Your task to perform on an android device: change the clock style Image 0: 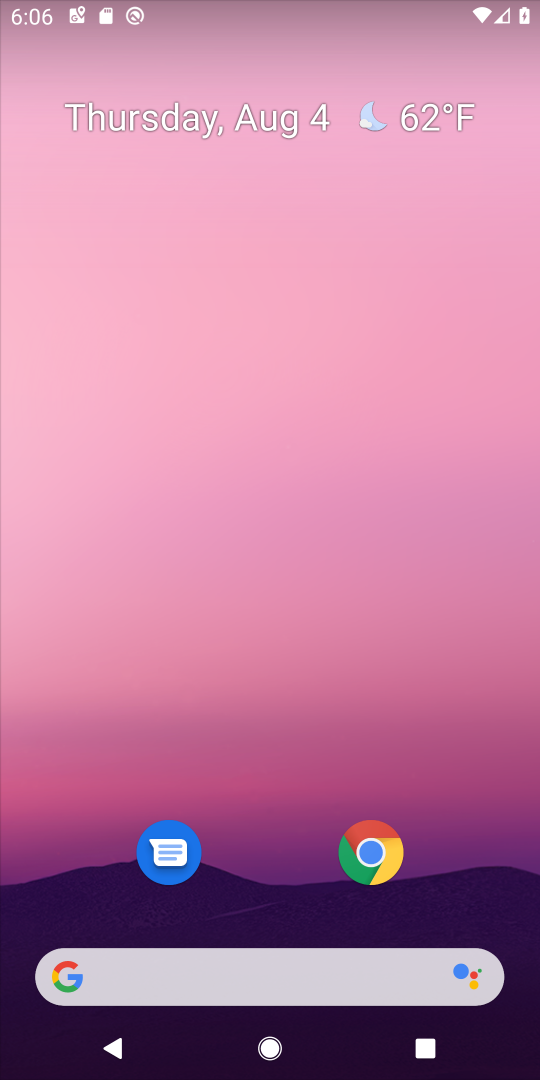
Step 0: drag from (252, 713) to (251, 59)
Your task to perform on an android device: change the clock style Image 1: 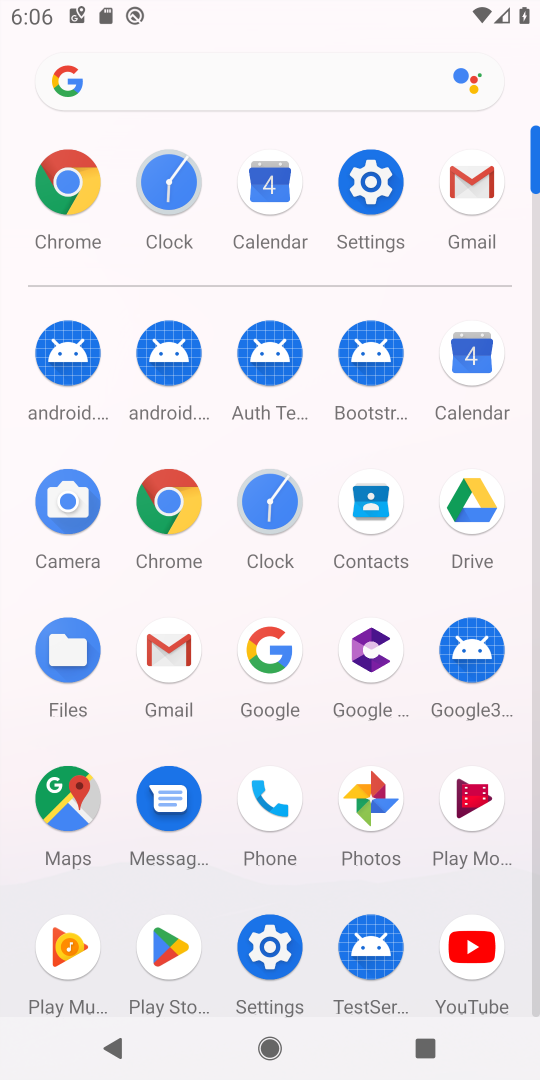
Step 1: click (269, 523)
Your task to perform on an android device: change the clock style Image 2: 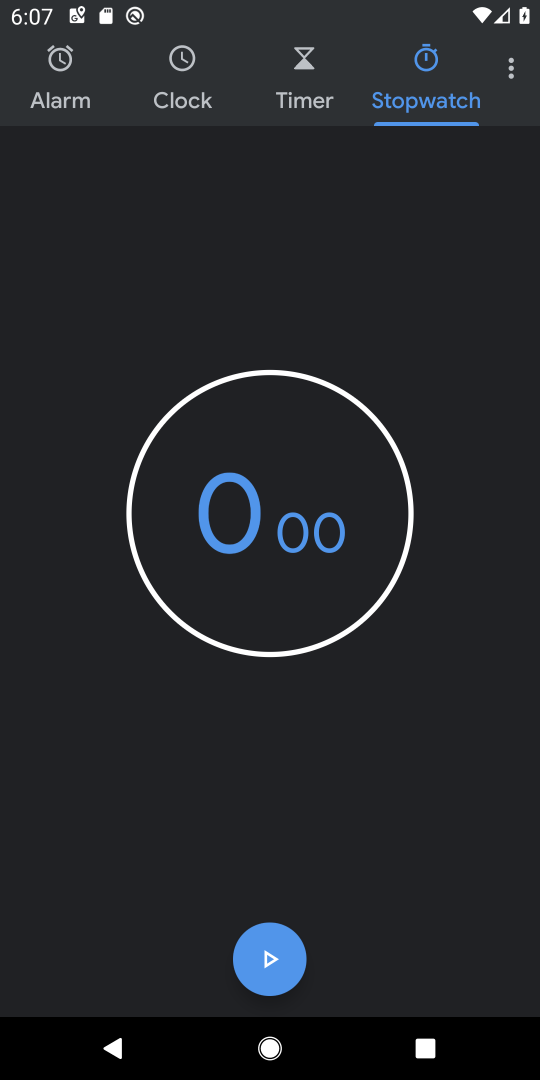
Step 2: click (514, 80)
Your task to perform on an android device: change the clock style Image 3: 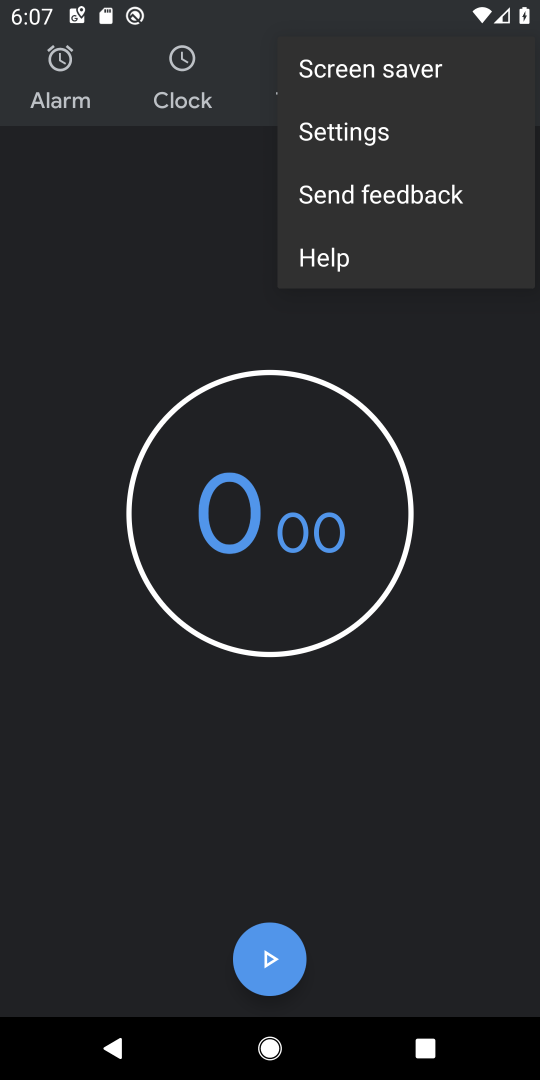
Step 3: click (341, 118)
Your task to perform on an android device: change the clock style Image 4: 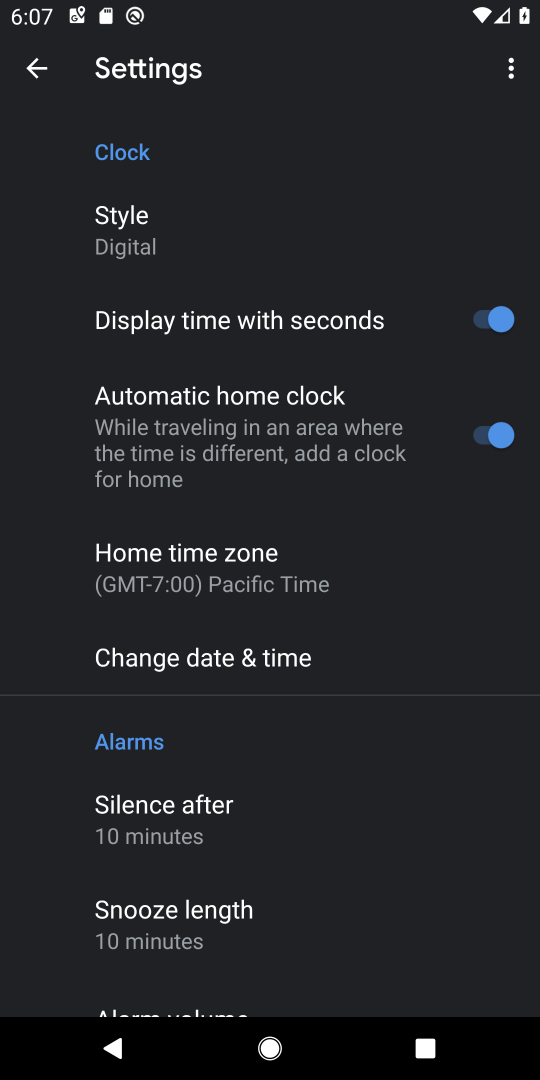
Step 4: click (106, 244)
Your task to perform on an android device: change the clock style Image 5: 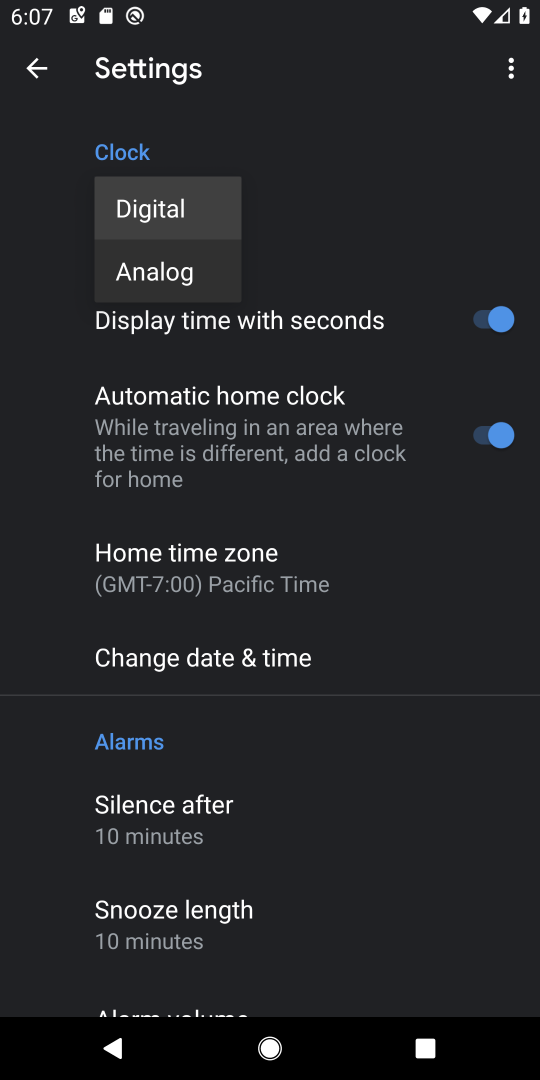
Step 5: click (159, 274)
Your task to perform on an android device: change the clock style Image 6: 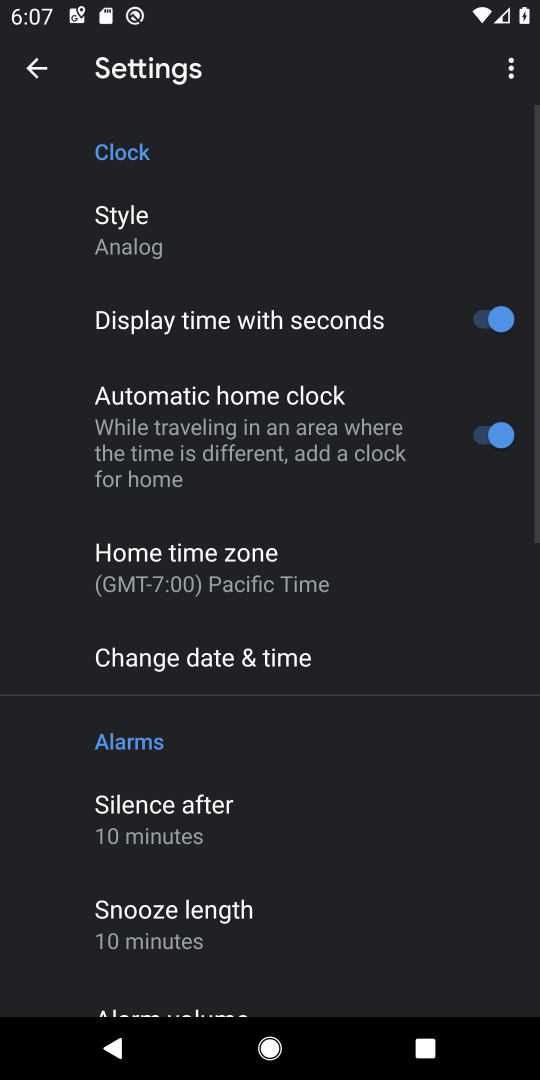
Step 6: task complete